Your task to perform on an android device: Search for pizza restaurants on Maps Image 0: 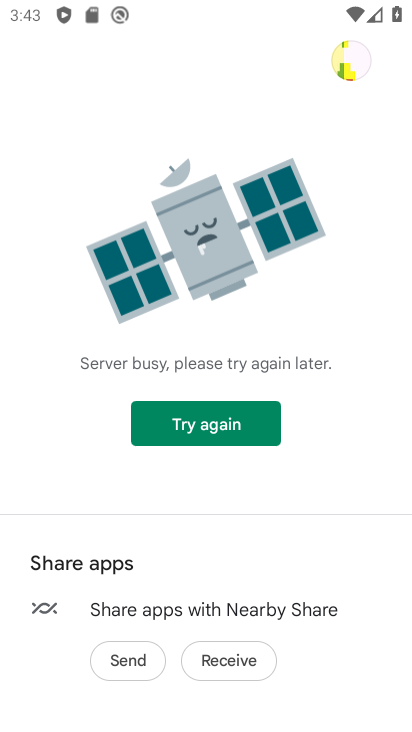
Step 0: press home button
Your task to perform on an android device: Search for pizza restaurants on Maps Image 1: 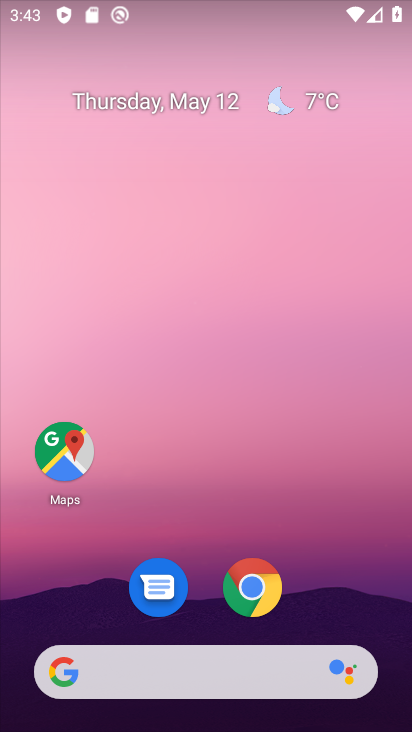
Step 1: click (61, 471)
Your task to perform on an android device: Search for pizza restaurants on Maps Image 2: 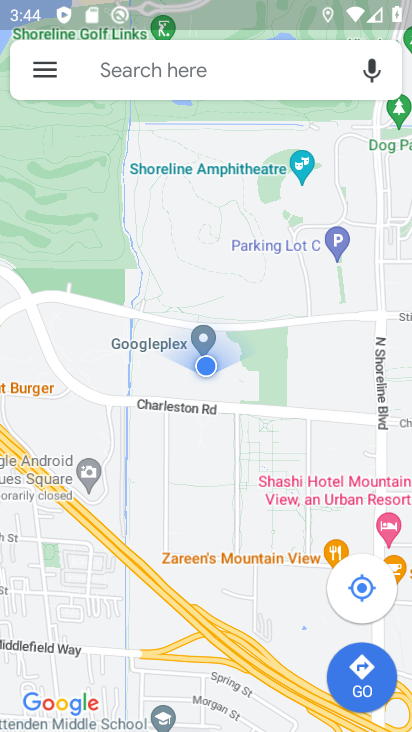
Step 2: click (146, 71)
Your task to perform on an android device: Search for pizza restaurants on Maps Image 3: 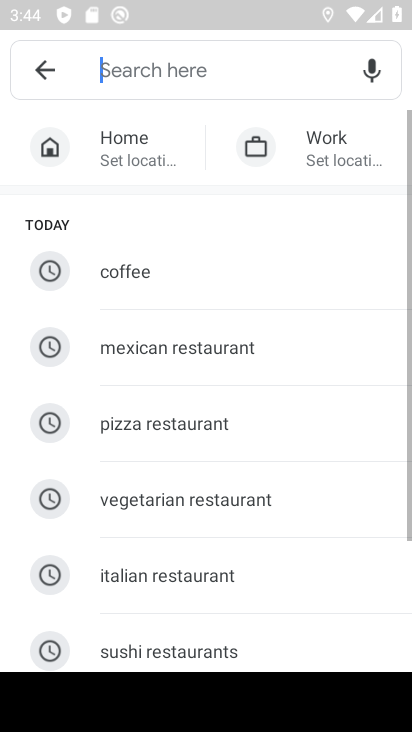
Step 3: click (190, 434)
Your task to perform on an android device: Search for pizza restaurants on Maps Image 4: 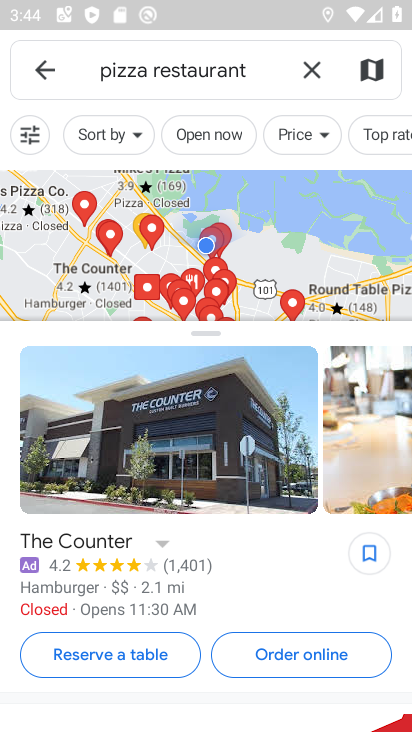
Step 4: task complete